Your task to perform on an android device: create a new album in the google photos Image 0: 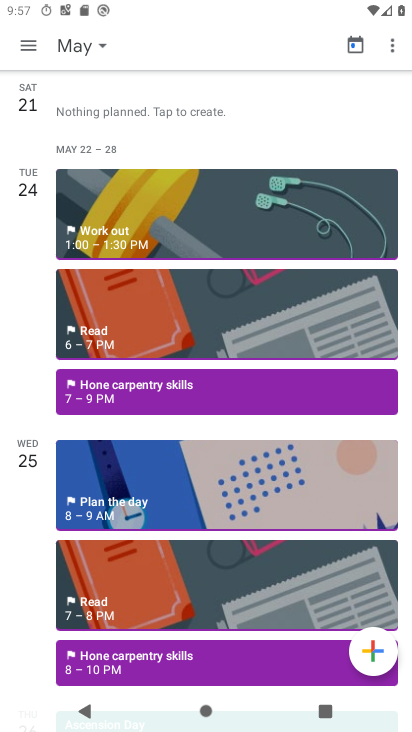
Step 0: press home button
Your task to perform on an android device: create a new album in the google photos Image 1: 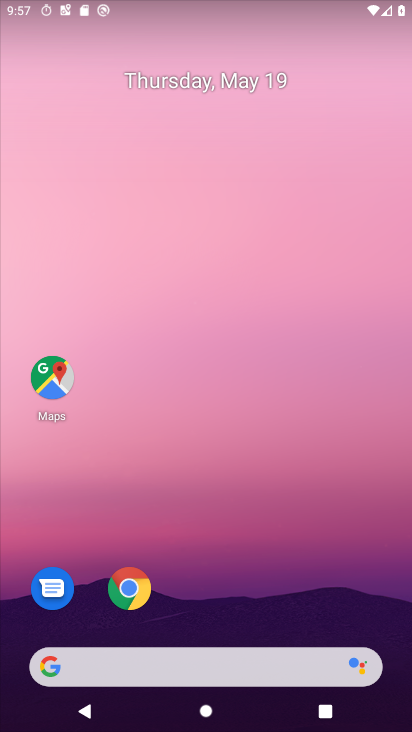
Step 1: drag from (201, 672) to (368, 248)
Your task to perform on an android device: create a new album in the google photos Image 2: 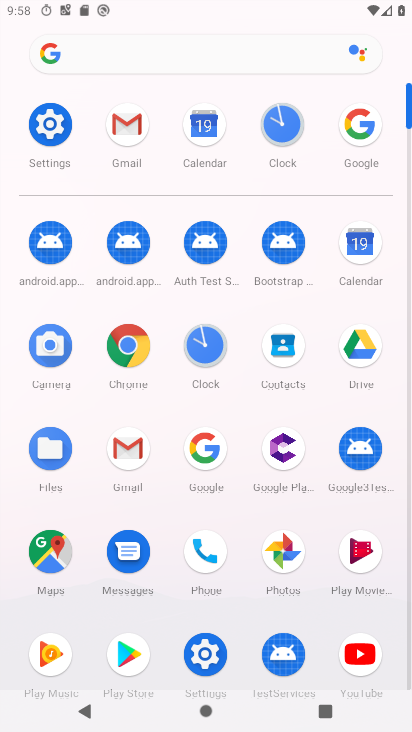
Step 2: click (287, 556)
Your task to perform on an android device: create a new album in the google photos Image 3: 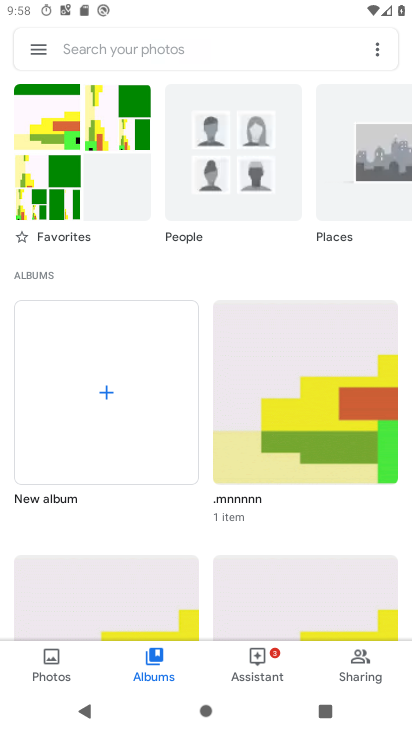
Step 3: click (105, 392)
Your task to perform on an android device: create a new album in the google photos Image 4: 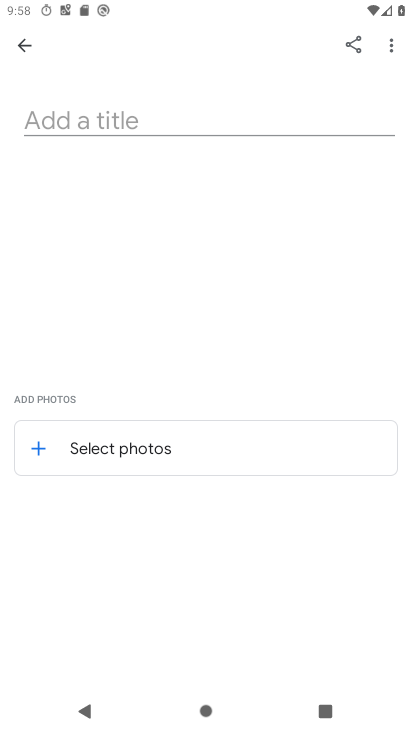
Step 4: click (152, 441)
Your task to perform on an android device: create a new album in the google photos Image 5: 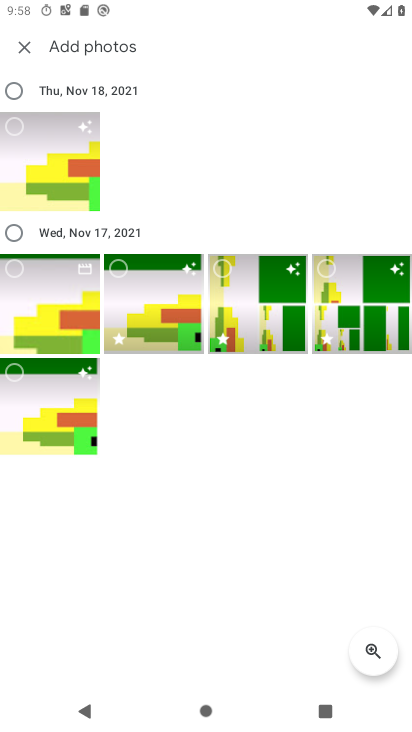
Step 5: click (39, 287)
Your task to perform on an android device: create a new album in the google photos Image 6: 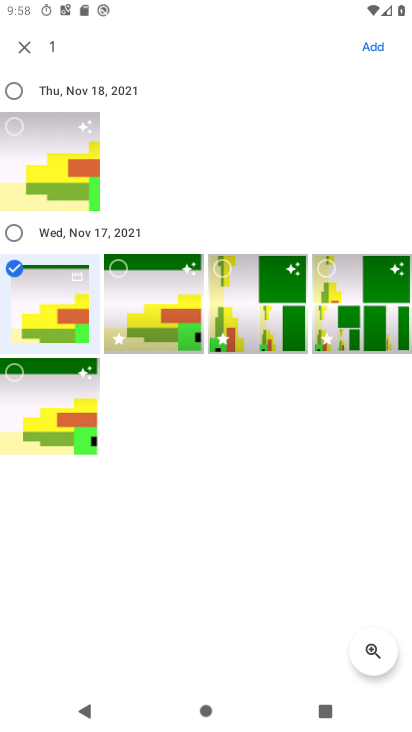
Step 6: click (149, 309)
Your task to perform on an android device: create a new album in the google photos Image 7: 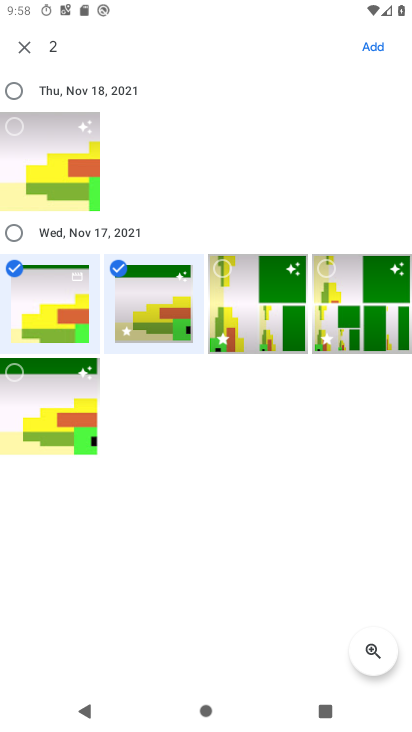
Step 7: click (372, 44)
Your task to perform on an android device: create a new album in the google photos Image 8: 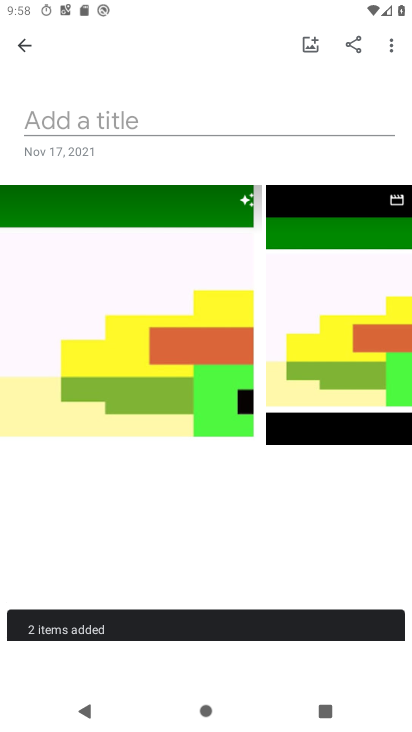
Step 8: task complete